Your task to perform on an android device: open a new tab in the chrome app Image 0: 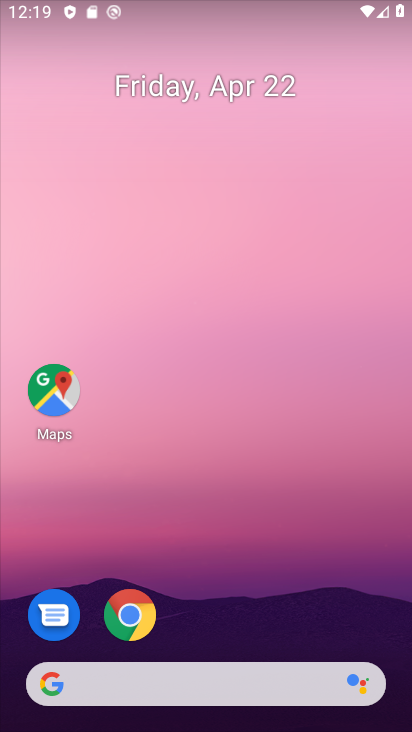
Step 0: click (131, 623)
Your task to perform on an android device: open a new tab in the chrome app Image 1: 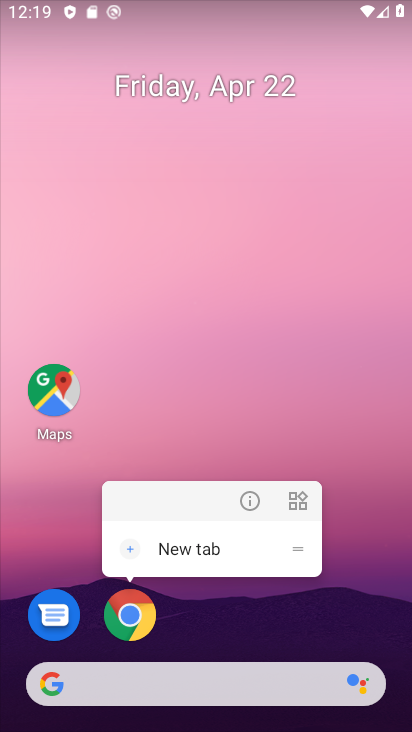
Step 1: click (131, 616)
Your task to perform on an android device: open a new tab in the chrome app Image 2: 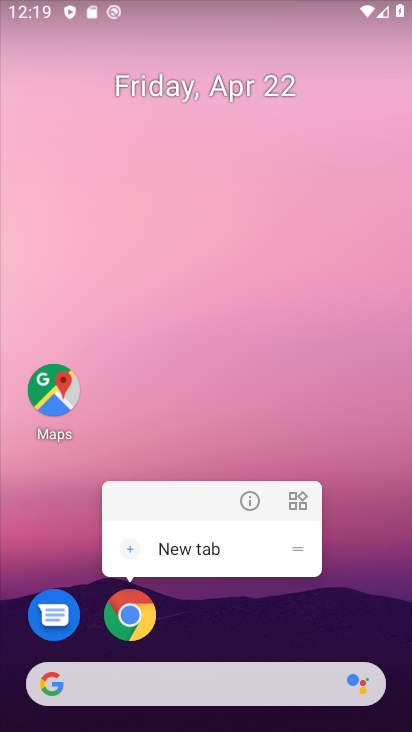
Step 2: click (131, 616)
Your task to perform on an android device: open a new tab in the chrome app Image 3: 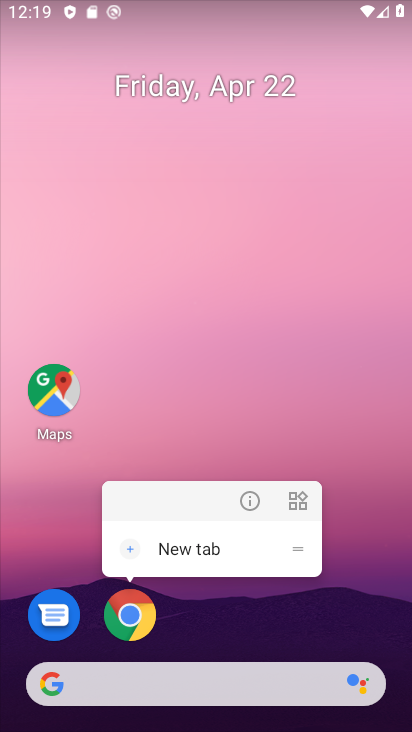
Step 3: click (131, 620)
Your task to perform on an android device: open a new tab in the chrome app Image 4: 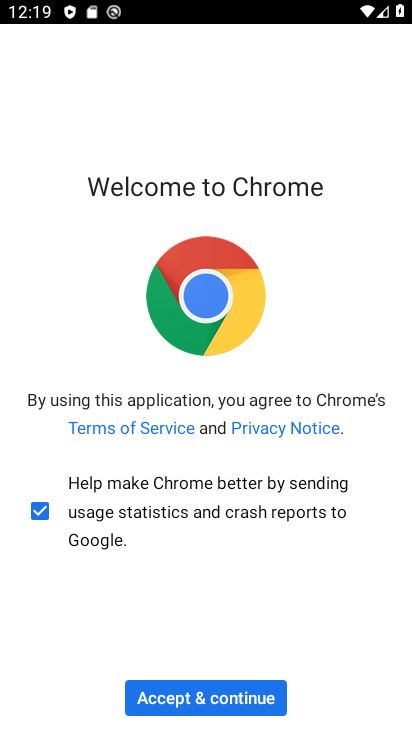
Step 4: click (253, 701)
Your task to perform on an android device: open a new tab in the chrome app Image 5: 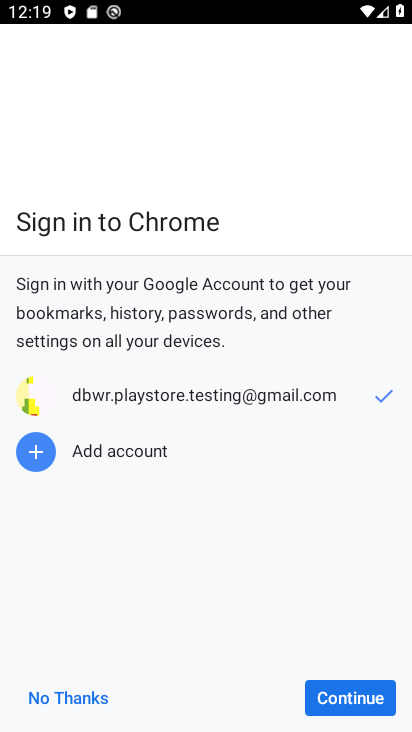
Step 5: click (341, 695)
Your task to perform on an android device: open a new tab in the chrome app Image 6: 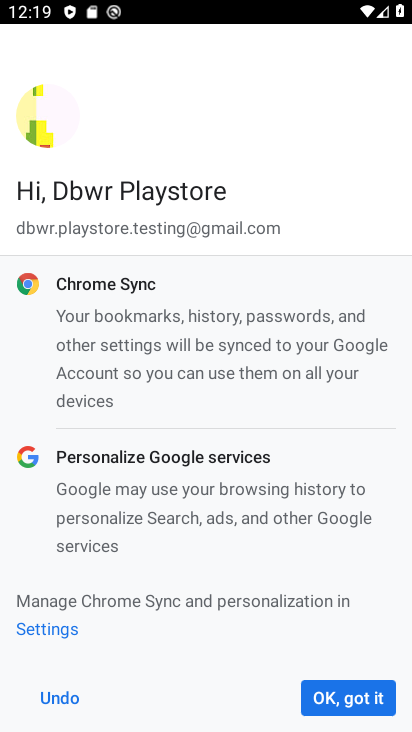
Step 6: click (343, 694)
Your task to perform on an android device: open a new tab in the chrome app Image 7: 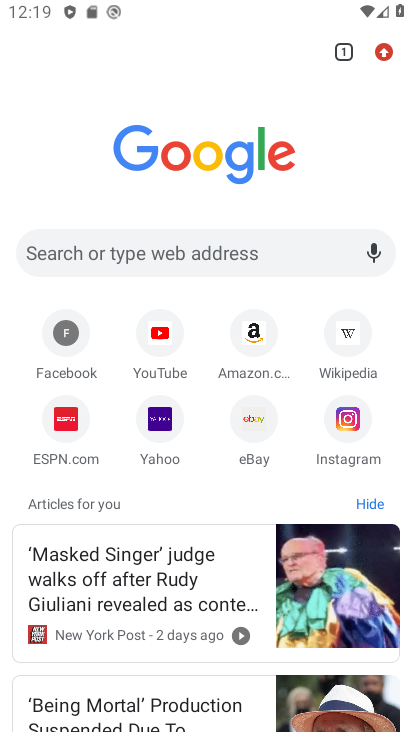
Step 7: click (391, 52)
Your task to perform on an android device: open a new tab in the chrome app Image 8: 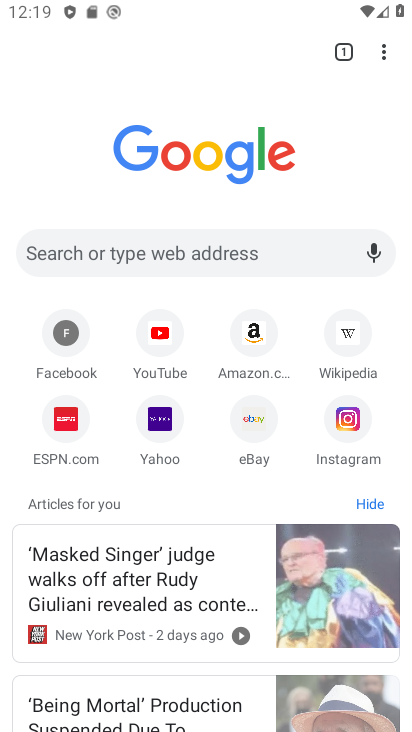
Step 8: click (283, 167)
Your task to perform on an android device: open a new tab in the chrome app Image 9: 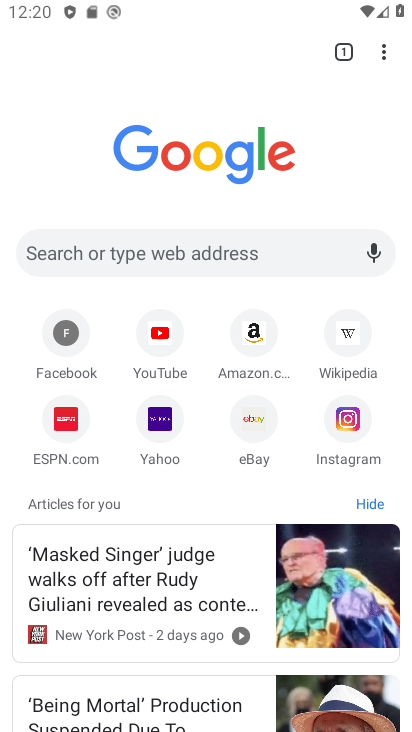
Step 9: task complete